Your task to perform on an android device: change notifications settings Image 0: 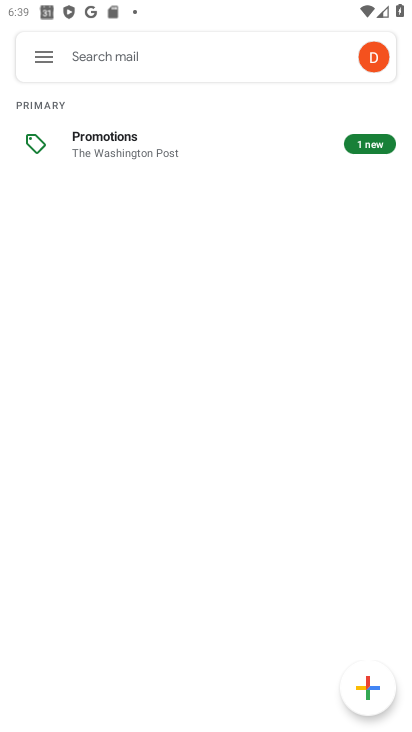
Step 0: press home button
Your task to perform on an android device: change notifications settings Image 1: 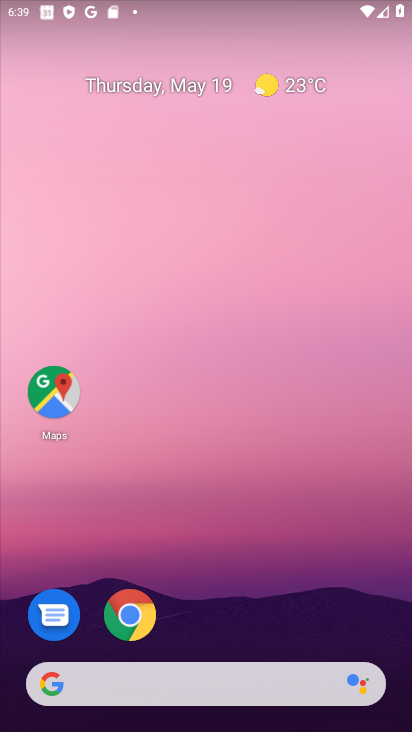
Step 1: drag from (335, 616) to (253, 68)
Your task to perform on an android device: change notifications settings Image 2: 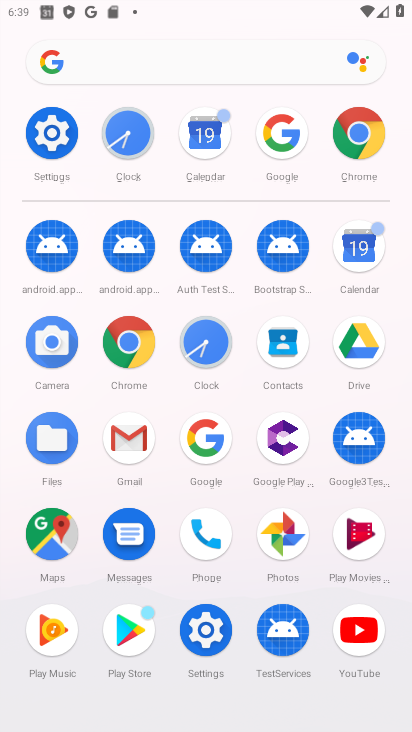
Step 2: click (221, 637)
Your task to perform on an android device: change notifications settings Image 3: 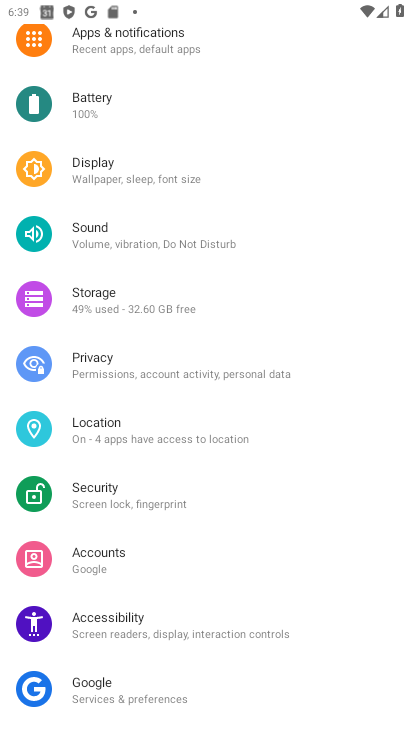
Step 3: click (215, 48)
Your task to perform on an android device: change notifications settings Image 4: 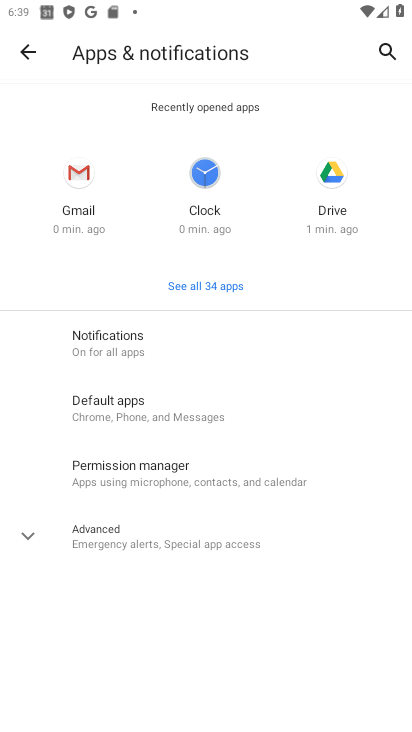
Step 4: task complete